Your task to perform on an android device: When is my next appointment? Image 0: 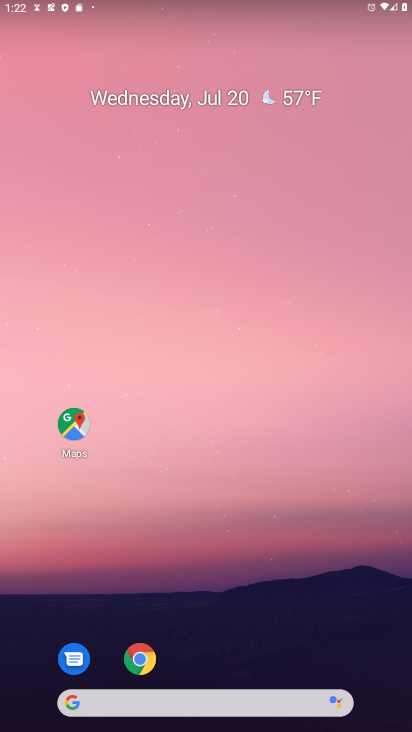
Step 0: drag from (222, 666) to (260, 38)
Your task to perform on an android device: When is my next appointment? Image 1: 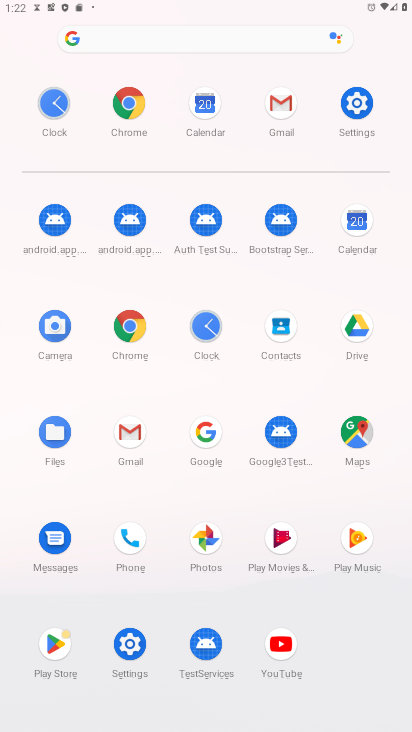
Step 1: click (357, 221)
Your task to perform on an android device: When is my next appointment? Image 2: 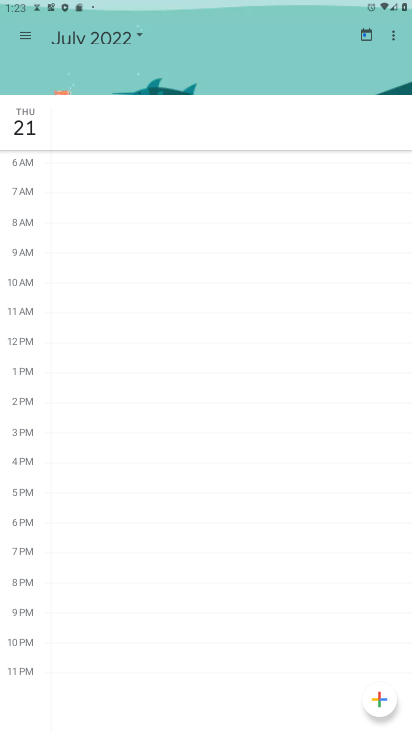
Step 2: click (19, 32)
Your task to perform on an android device: When is my next appointment? Image 3: 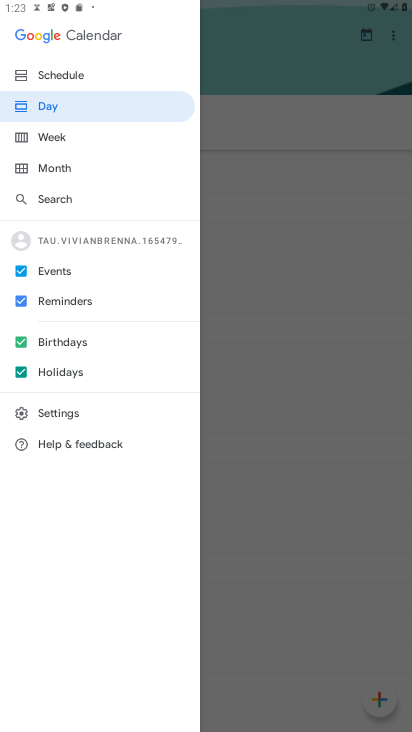
Step 3: click (18, 374)
Your task to perform on an android device: When is my next appointment? Image 4: 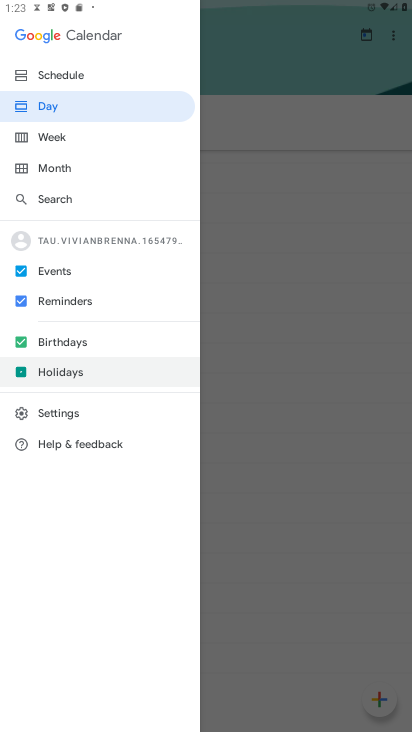
Step 4: click (13, 335)
Your task to perform on an android device: When is my next appointment? Image 5: 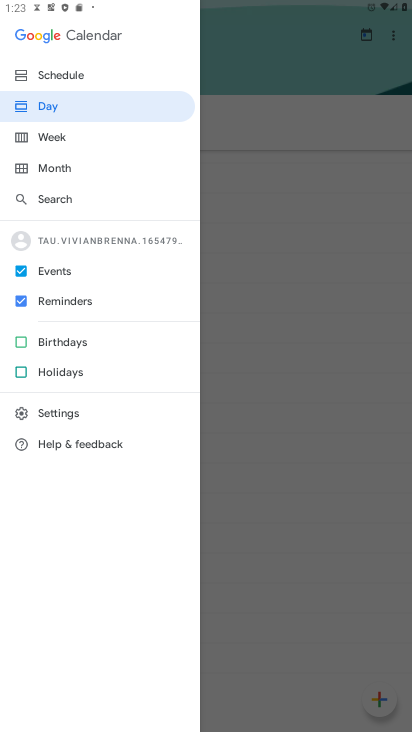
Step 5: click (22, 299)
Your task to perform on an android device: When is my next appointment? Image 6: 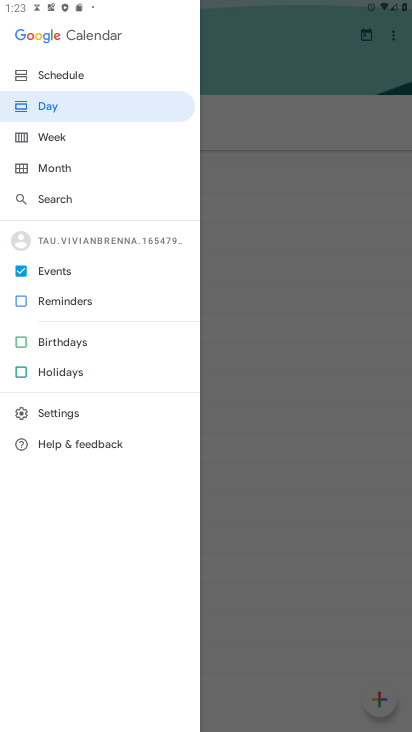
Step 6: click (49, 132)
Your task to perform on an android device: When is my next appointment? Image 7: 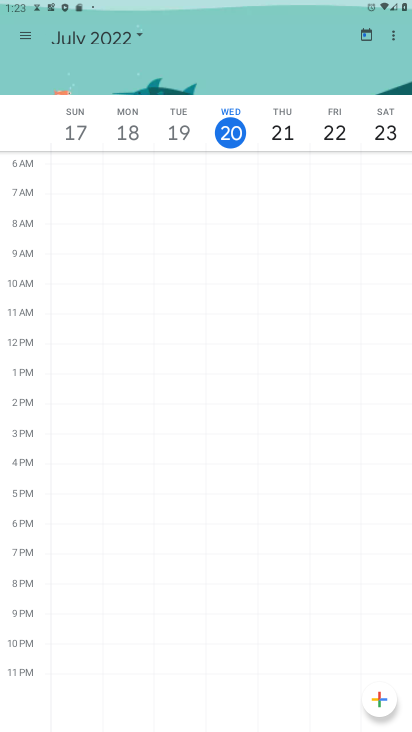
Step 7: task complete